Your task to perform on an android device: check the backup settings in the google photos Image 0: 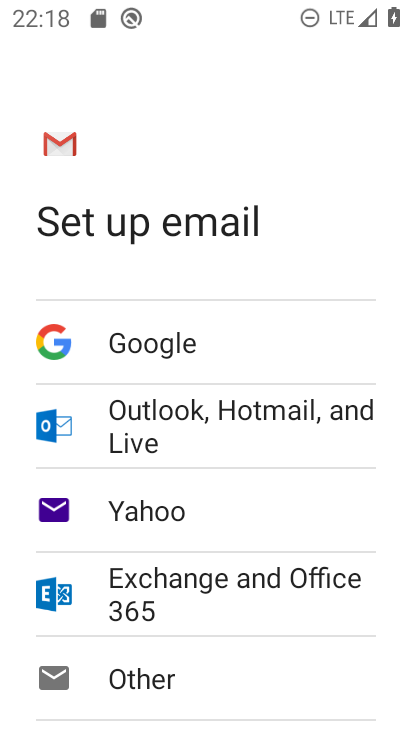
Step 0: press home button
Your task to perform on an android device: check the backup settings in the google photos Image 1: 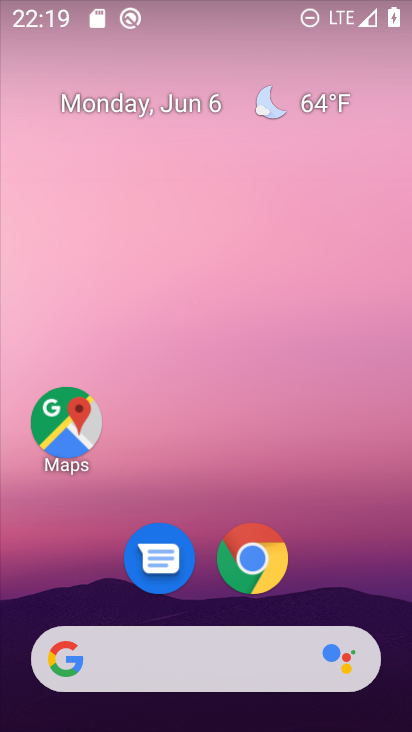
Step 1: drag from (226, 726) to (230, 211)
Your task to perform on an android device: check the backup settings in the google photos Image 2: 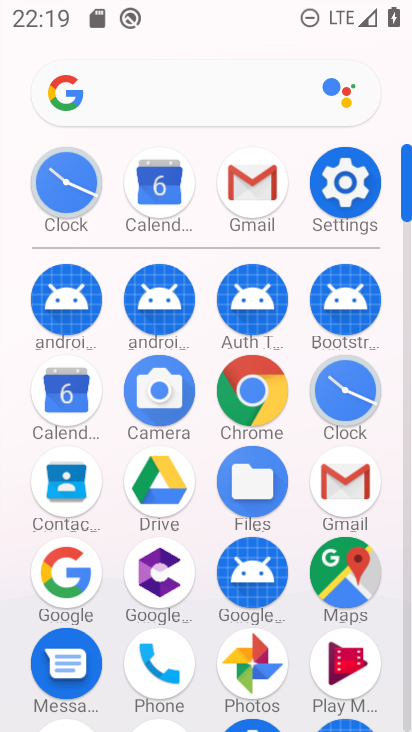
Step 2: click (249, 657)
Your task to perform on an android device: check the backup settings in the google photos Image 3: 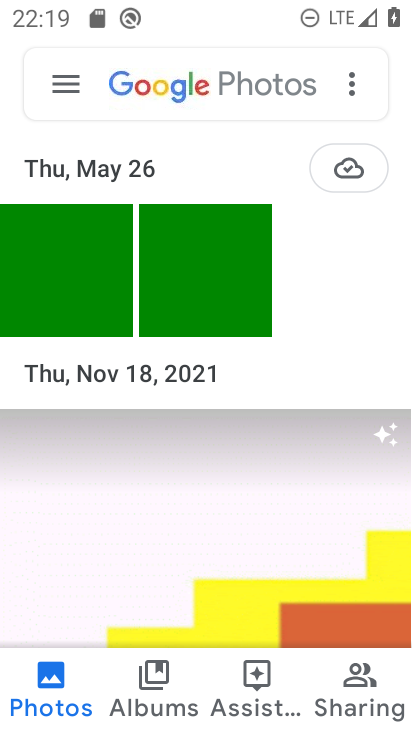
Step 3: click (63, 82)
Your task to perform on an android device: check the backup settings in the google photos Image 4: 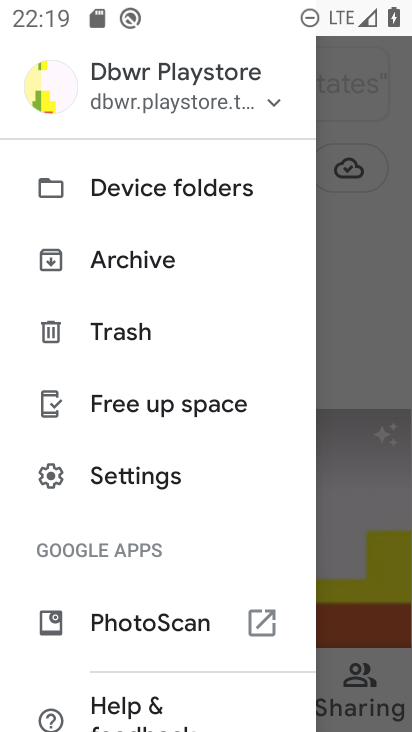
Step 4: click (124, 470)
Your task to perform on an android device: check the backup settings in the google photos Image 5: 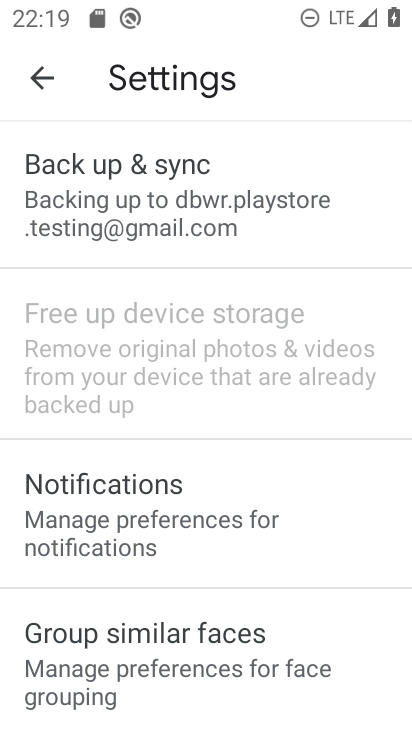
Step 5: click (105, 197)
Your task to perform on an android device: check the backup settings in the google photos Image 6: 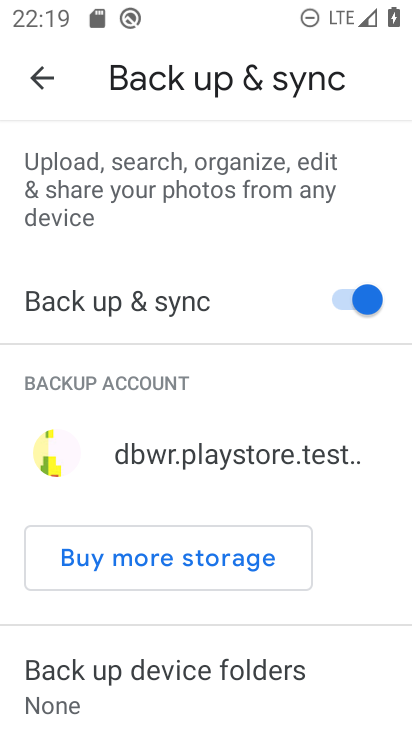
Step 6: task complete